Your task to perform on an android device: Go to Reddit.com Image 0: 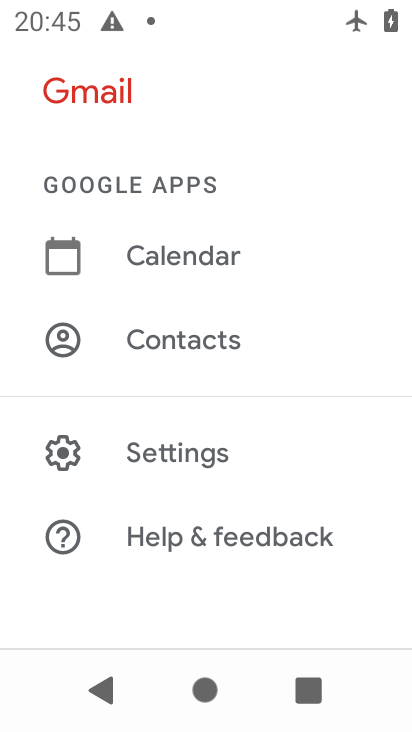
Step 0: press home button
Your task to perform on an android device: Go to Reddit.com Image 1: 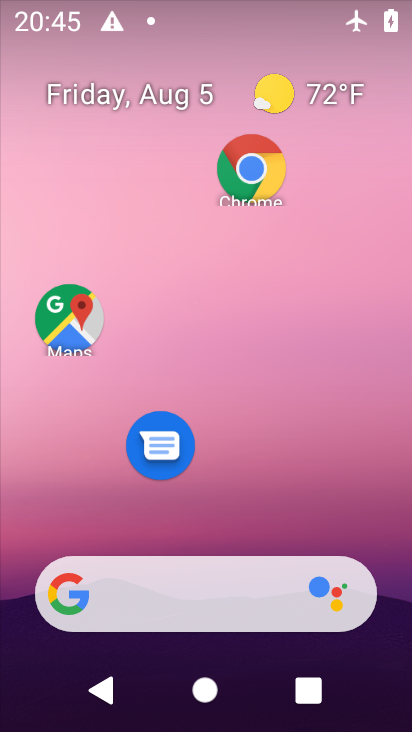
Step 1: drag from (236, 516) to (236, 464)
Your task to perform on an android device: Go to Reddit.com Image 2: 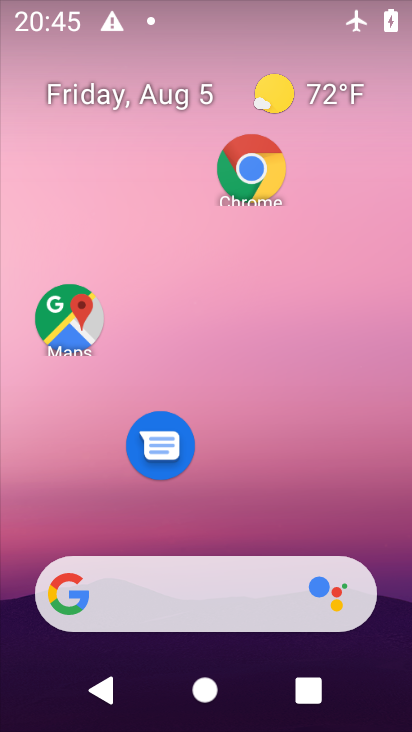
Step 2: click (196, 199)
Your task to perform on an android device: Go to Reddit.com Image 3: 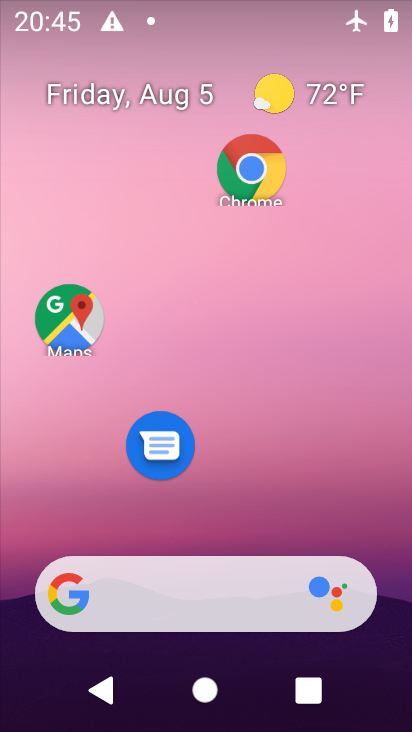
Step 3: click (271, 163)
Your task to perform on an android device: Go to Reddit.com Image 4: 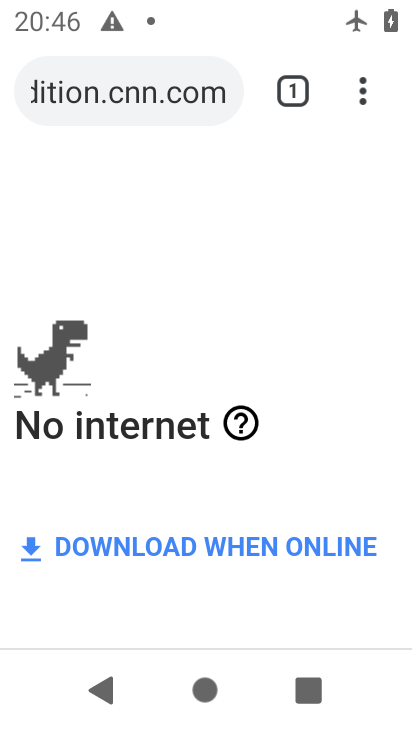
Step 4: click (307, 95)
Your task to perform on an android device: Go to Reddit.com Image 5: 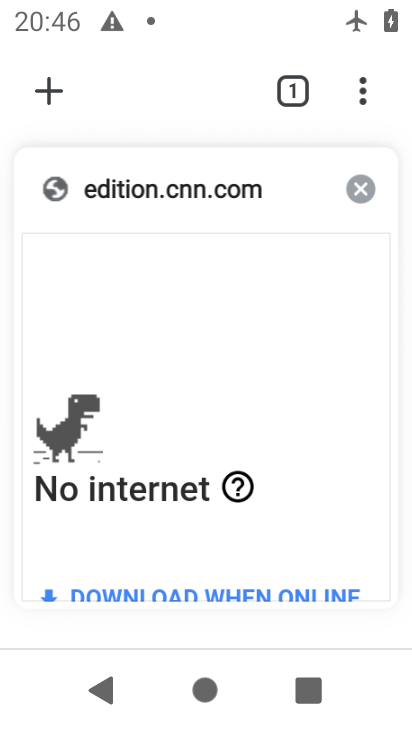
Step 5: click (44, 93)
Your task to perform on an android device: Go to Reddit.com Image 6: 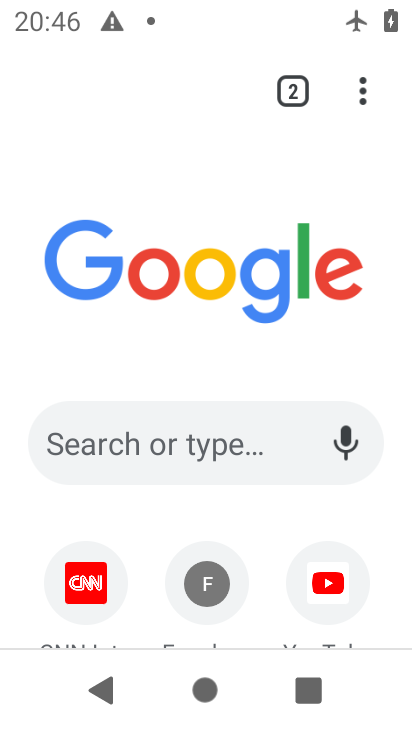
Step 6: type "Reddit.com"
Your task to perform on an android device: Go to Reddit.com Image 7: 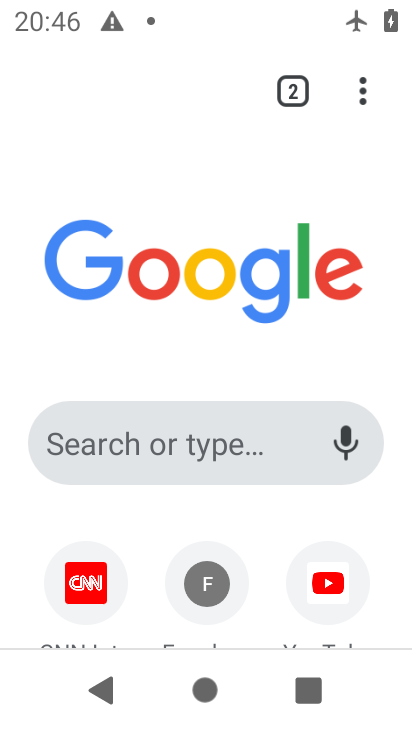
Step 7: type ""
Your task to perform on an android device: Go to Reddit.com Image 8: 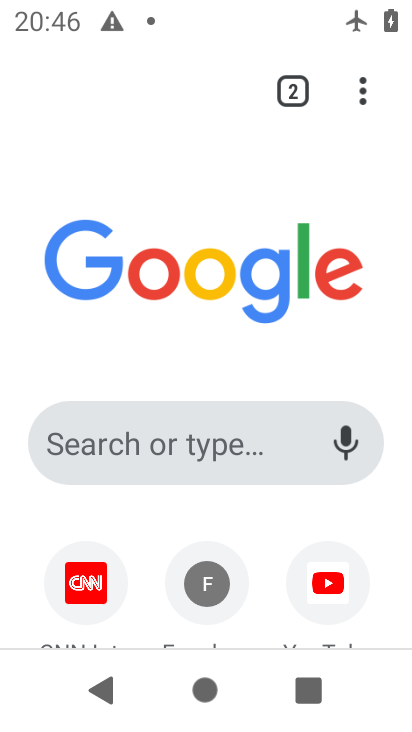
Step 8: click (227, 448)
Your task to perform on an android device: Go to Reddit.com Image 9: 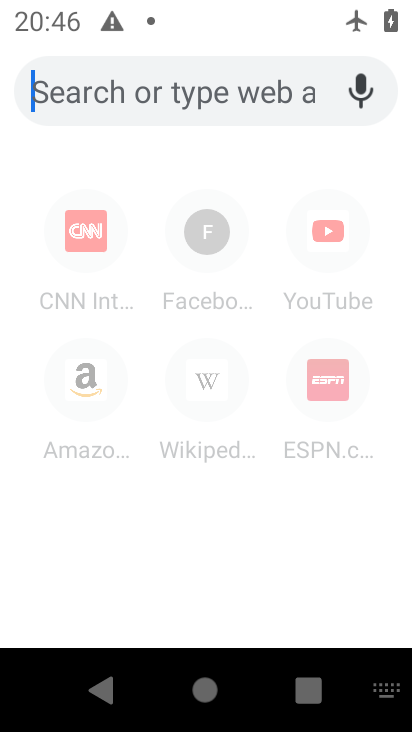
Step 9: type "Reddit.com"
Your task to perform on an android device: Go to Reddit.com Image 10: 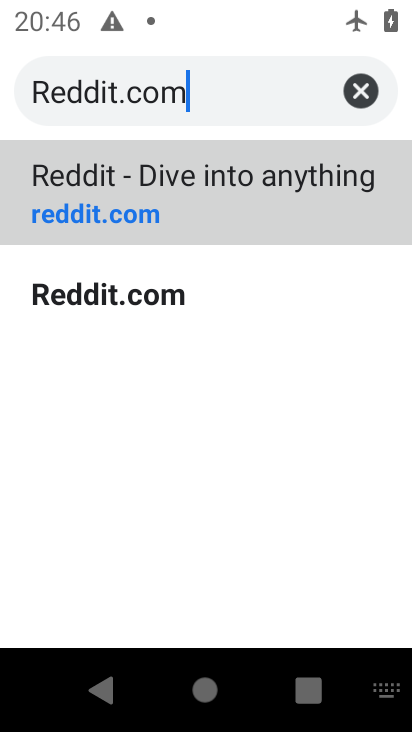
Step 10: type ""
Your task to perform on an android device: Go to Reddit.com Image 11: 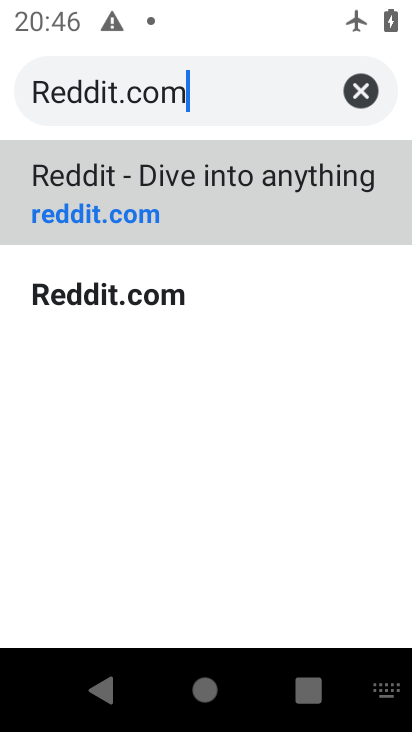
Step 11: click (169, 183)
Your task to perform on an android device: Go to Reddit.com Image 12: 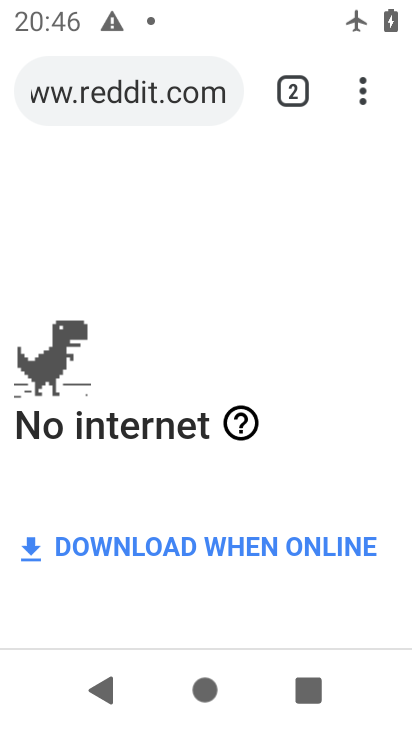
Step 12: task complete